Your task to perform on an android device: snooze an email in the gmail app Image 0: 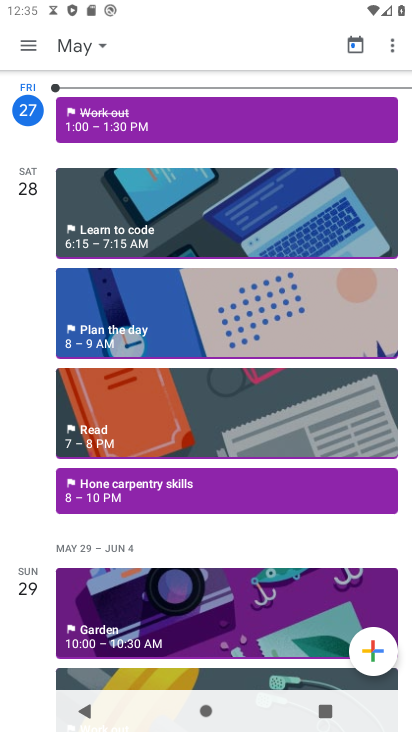
Step 0: press home button
Your task to perform on an android device: snooze an email in the gmail app Image 1: 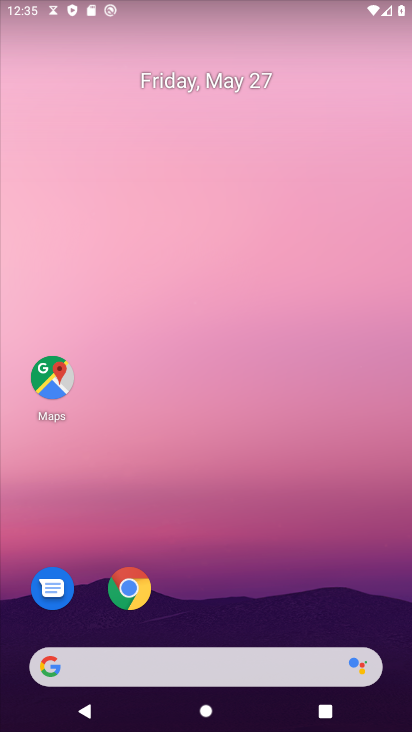
Step 1: click (198, 39)
Your task to perform on an android device: snooze an email in the gmail app Image 2: 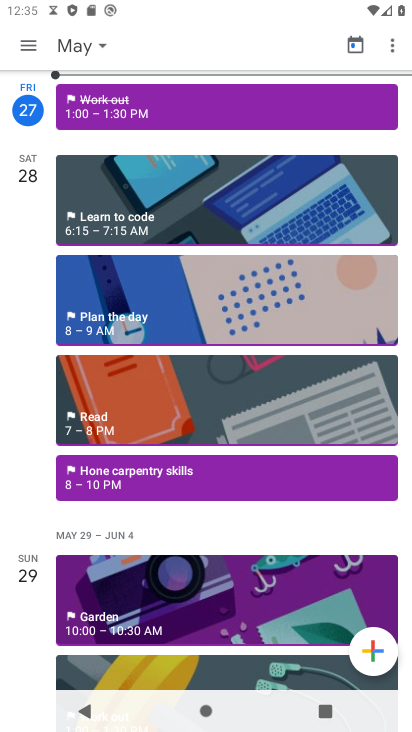
Step 2: press home button
Your task to perform on an android device: snooze an email in the gmail app Image 3: 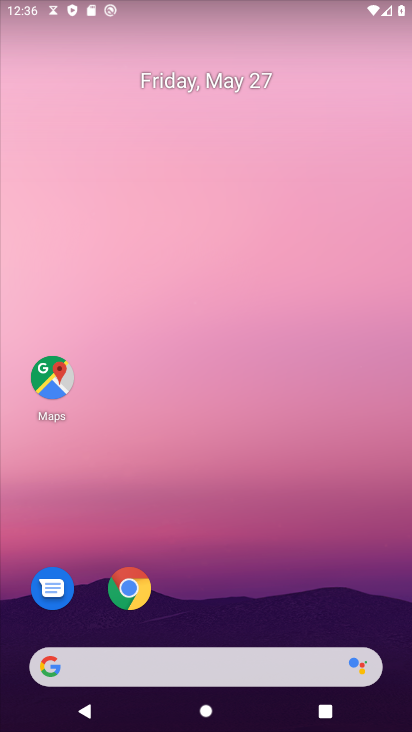
Step 3: drag from (216, 620) to (229, 48)
Your task to perform on an android device: snooze an email in the gmail app Image 4: 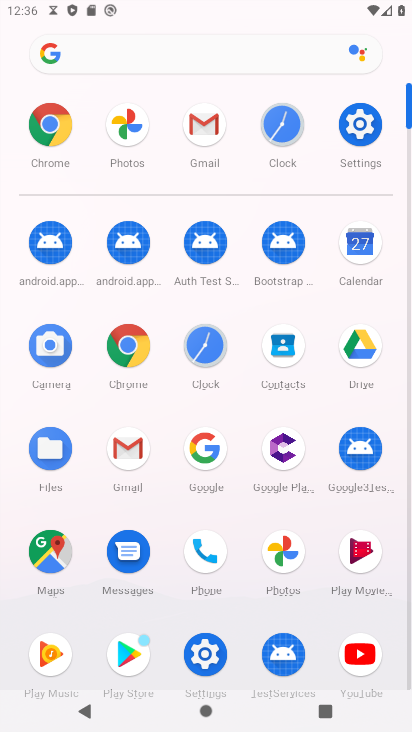
Step 4: click (204, 112)
Your task to perform on an android device: snooze an email in the gmail app Image 5: 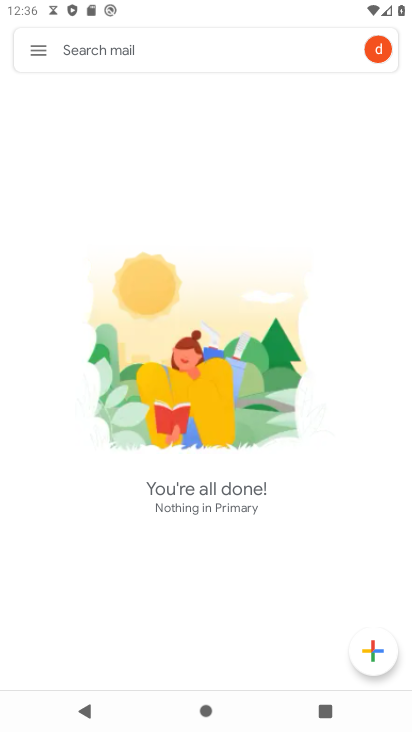
Step 5: task complete